Your task to perform on an android device: Is it going to rain this weekend? Image 0: 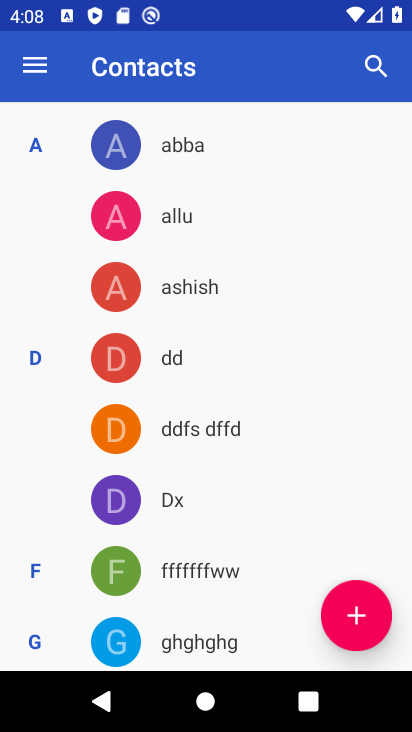
Step 0: press home button
Your task to perform on an android device: Is it going to rain this weekend? Image 1: 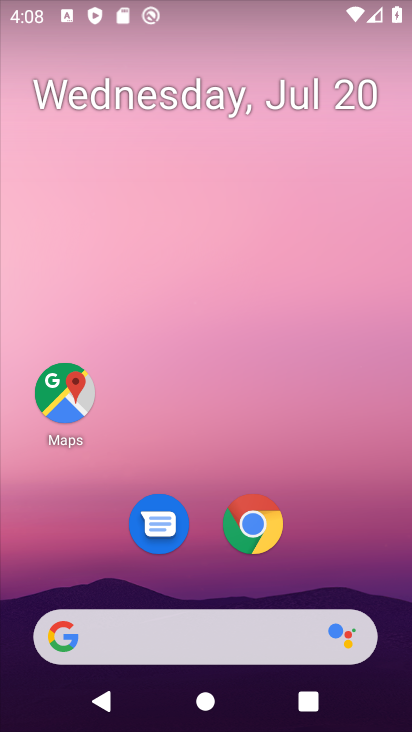
Step 1: click (254, 637)
Your task to perform on an android device: Is it going to rain this weekend? Image 2: 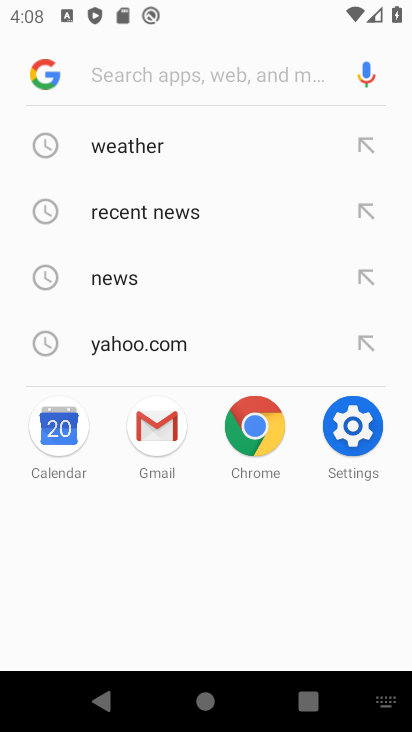
Step 2: click (148, 154)
Your task to perform on an android device: Is it going to rain this weekend? Image 3: 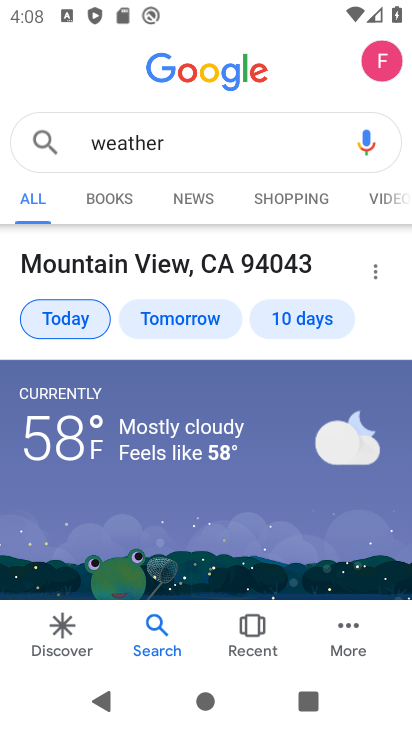
Step 3: click (67, 312)
Your task to perform on an android device: Is it going to rain this weekend? Image 4: 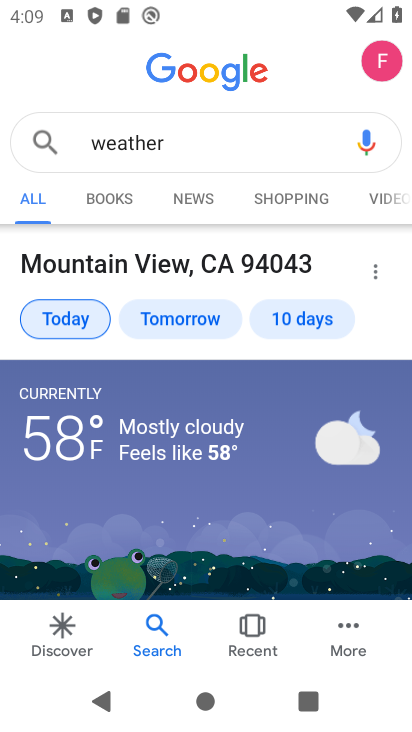
Step 4: click (75, 320)
Your task to perform on an android device: Is it going to rain this weekend? Image 5: 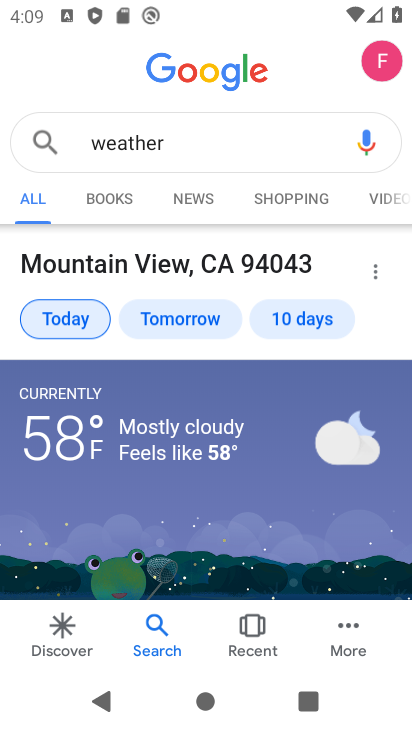
Step 5: click (191, 317)
Your task to perform on an android device: Is it going to rain this weekend? Image 6: 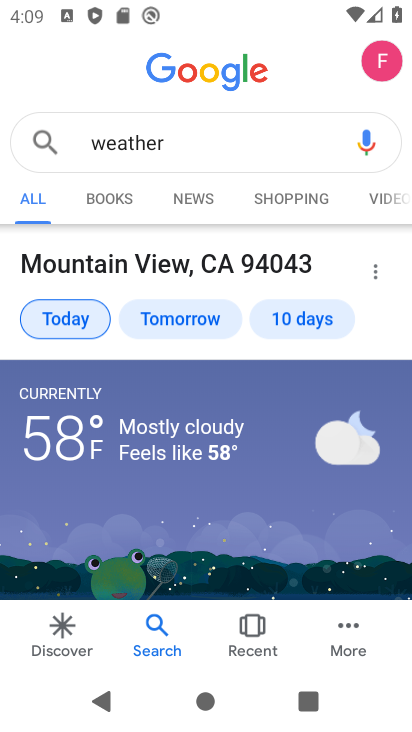
Step 6: click (316, 320)
Your task to perform on an android device: Is it going to rain this weekend? Image 7: 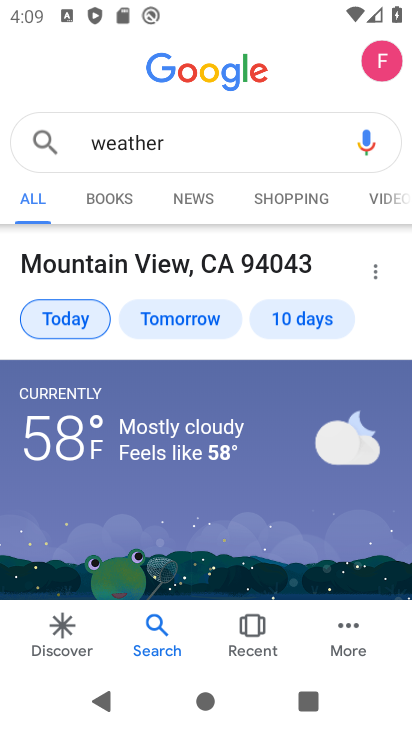
Step 7: press home button
Your task to perform on an android device: Is it going to rain this weekend? Image 8: 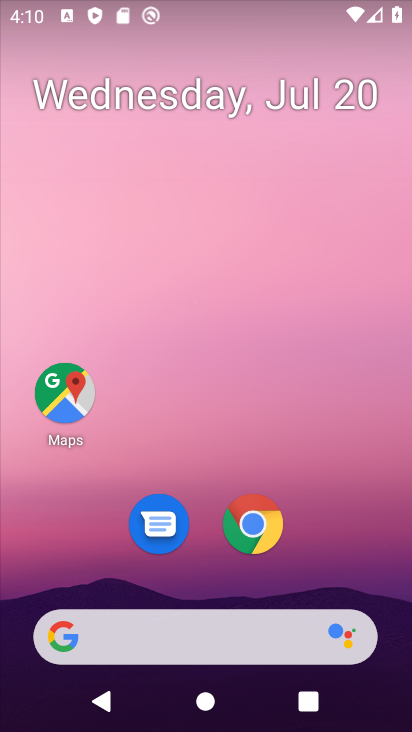
Step 8: click (179, 646)
Your task to perform on an android device: Is it going to rain this weekend? Image 9: 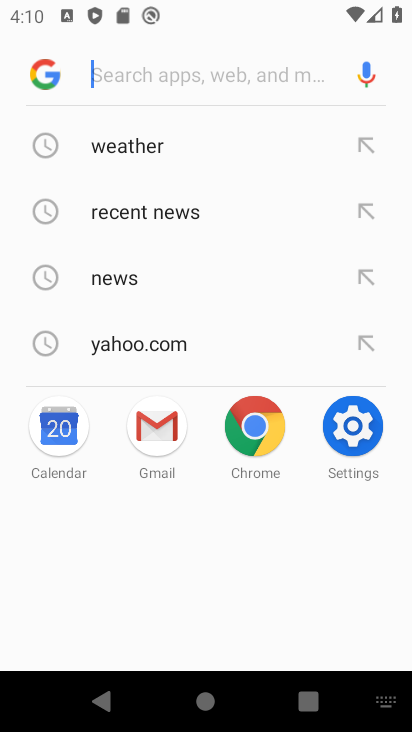
Step 9: click (139, 149)
Your task to perform on an android device: Is it going to rain this weekend? Image 10: 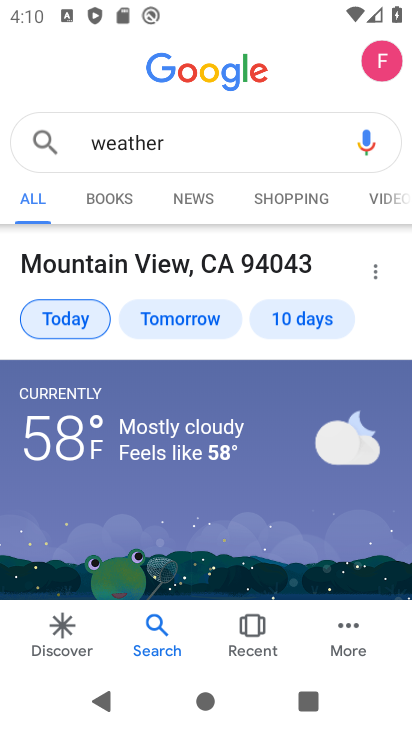
Step 10: click (80, 310)
Your task to perform on an android device: Is it going to rain this weekend? Image 11: 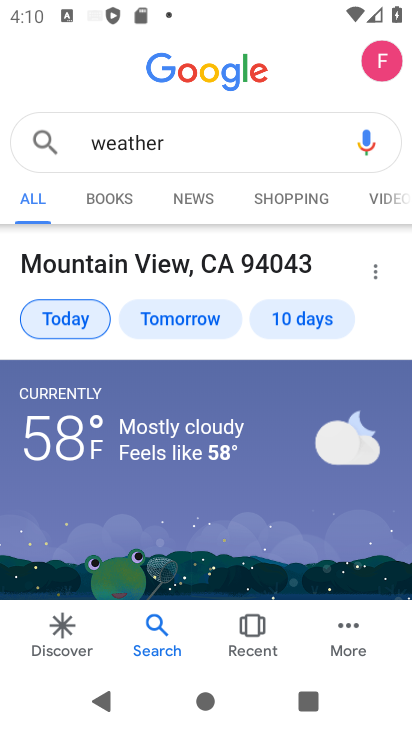
Step 11: click (80, 310)
Your task to perform on an android device: Is it going to rain this weekend? Image 12: 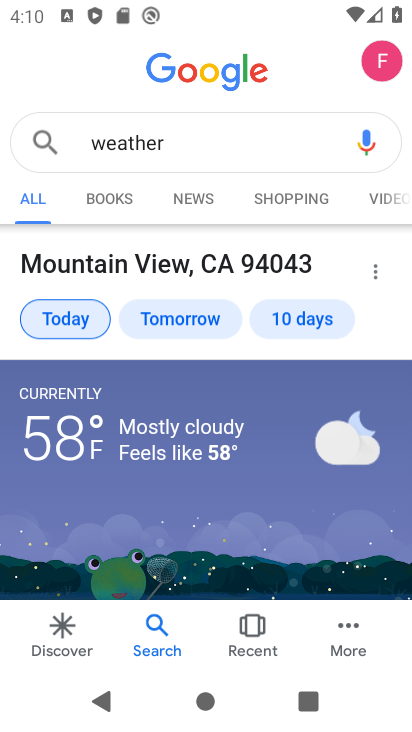
Step 12: click (183, 313)
Your task to perform on an android device: Is it going to rain this weekend? Image 13: 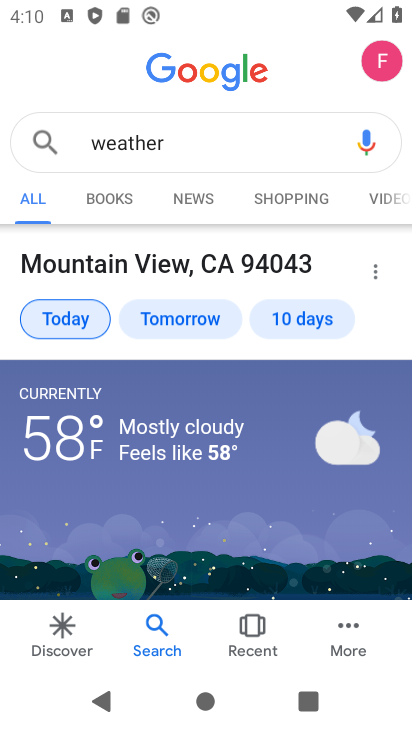
Step 13: click (300, 311)
Your task to perform on an android device: Is it going to rain this weekend? Image 14: 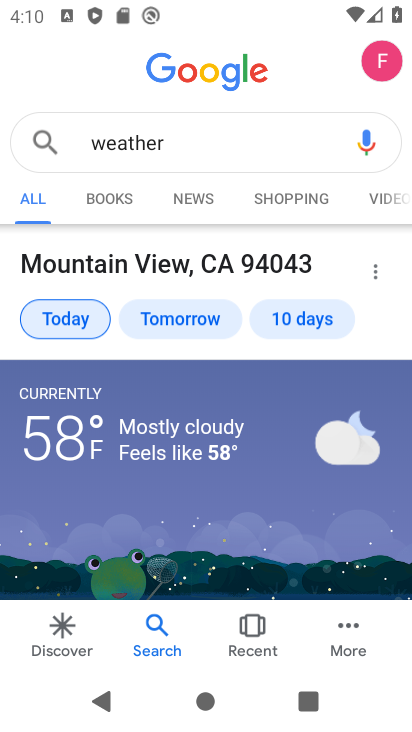
Step 14: click (65, 310)
Your task to perform on an android device: Is it going to rain this weekend? Image 15: 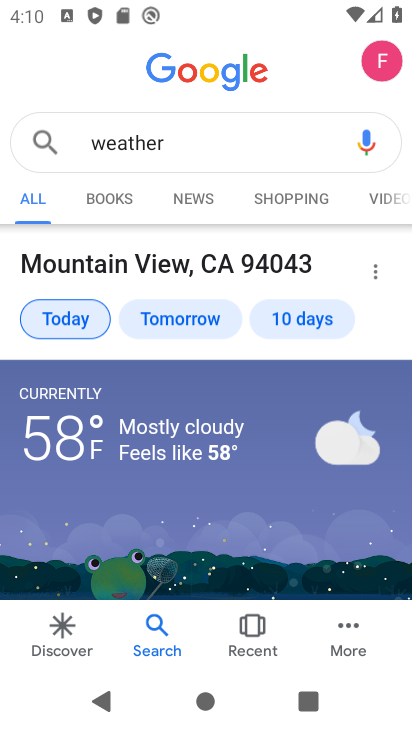
Step 15: click (300, 311)
Your task to perform on an android device: Is it going to rain this weekend? Image 16: 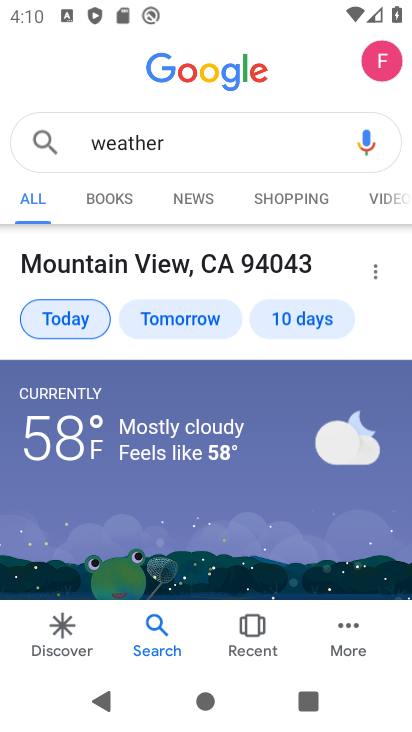
Step 16: drag from (203, 488) to (229, 217)
Your task to perform on an android device: Is it going to rain this weekend? Image 17: 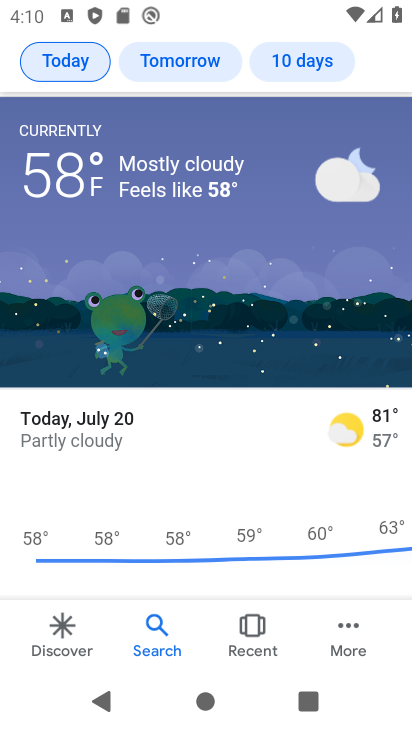
Step 17: click (106, 414)
Your task to perform on an android device: Is it going to rain this weekend? Image 18: 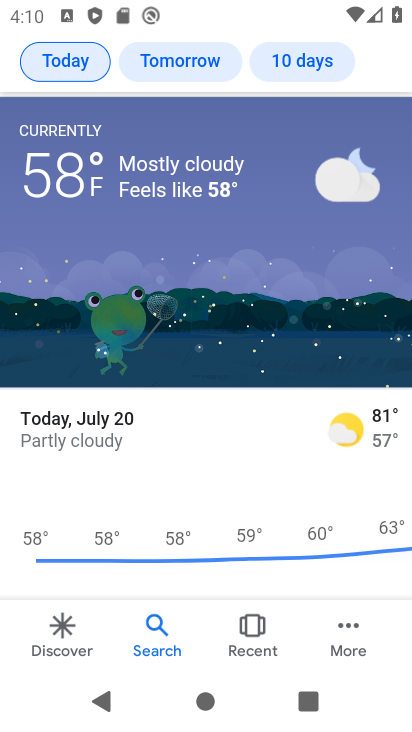
Step 18: click (106, 415)
Your task to perform on an android device: Is it going to rain this weekend? Image 19: 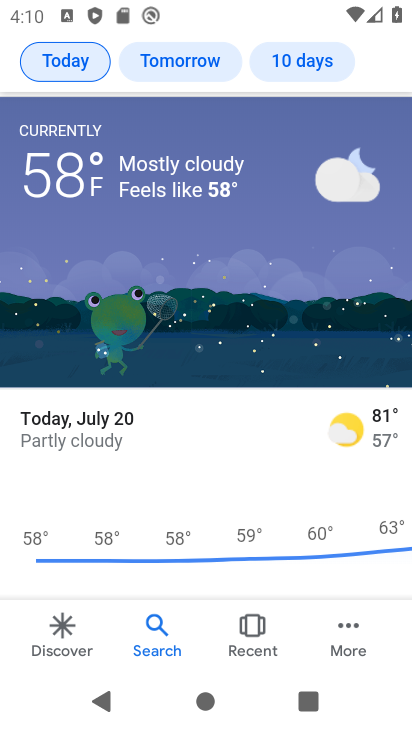
Step 19: drag from (223, 459) to (274, 179)
Your task to perform on an android device: Is it going to rain this weekend? Image 20: 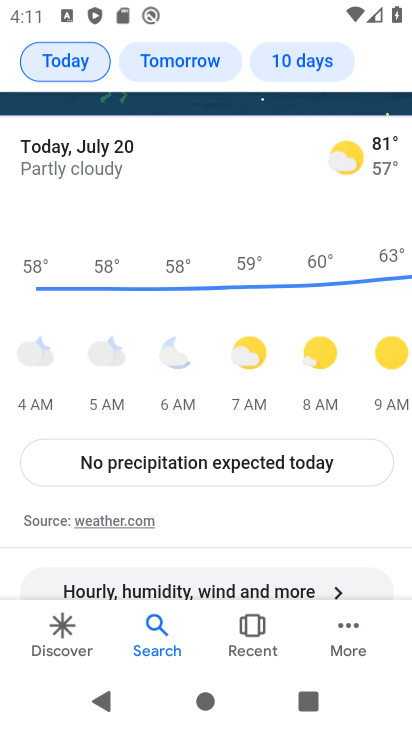
Step 20: drag from (221, 452) to (241, 149)
Your task to perform on an android device: Is it going to rain this weekend? Image 21: 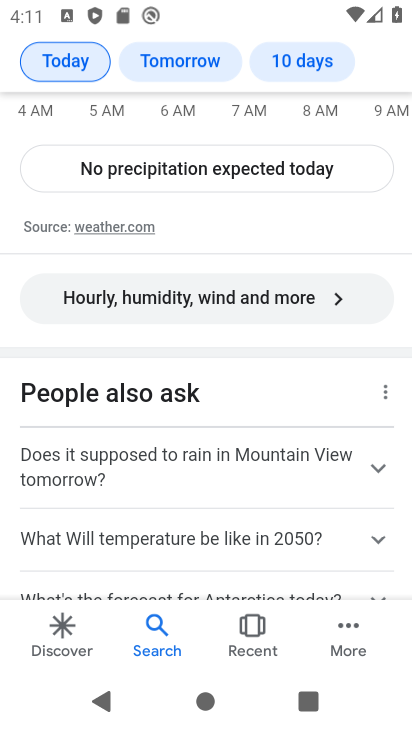
Step 21: drag from (227, 218) to (203, 581)
Your task to perform on an android device: Is it going to rain this weekend? Image 22: 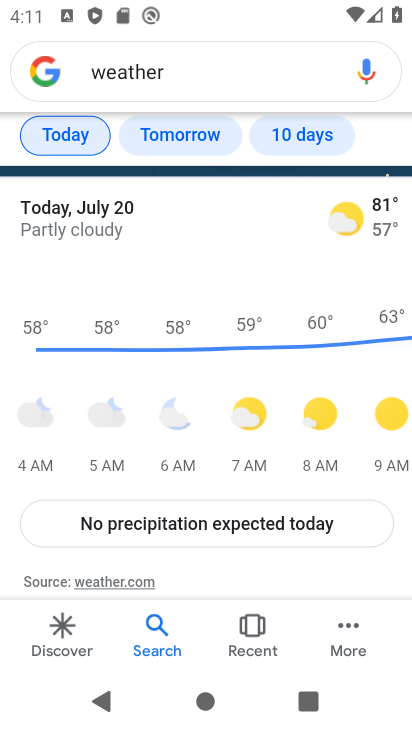
Step 22: drag from (245, 265) to (251, 578)
Your task to perform on an android device: Is it going to rain this weekend? Image 23: 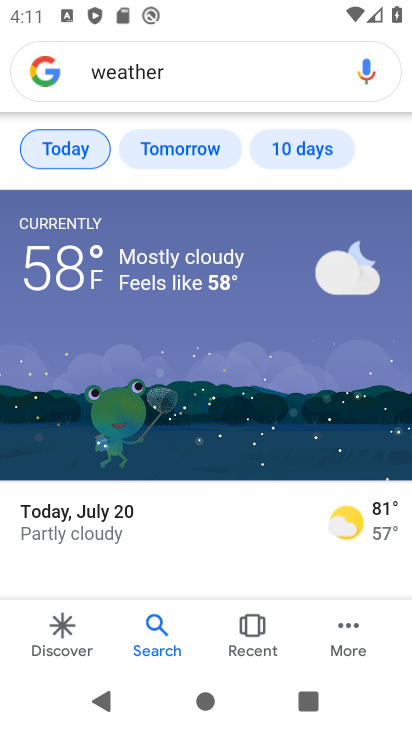
Step 23: drag from (265, 279) to (257, 589)
Your task to perform on an android device: Is it going to rain this weekend? Image 24: 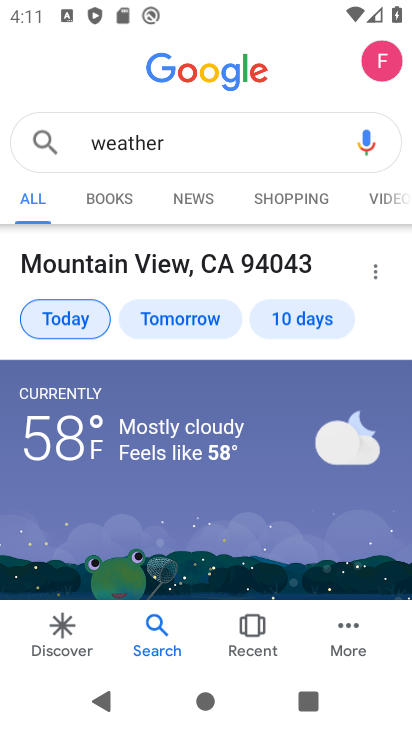
Step 24: drag from (350, 447) to (26, 397)
Your task to perform on an android device: Is it going to rain this weekend? Image 25: 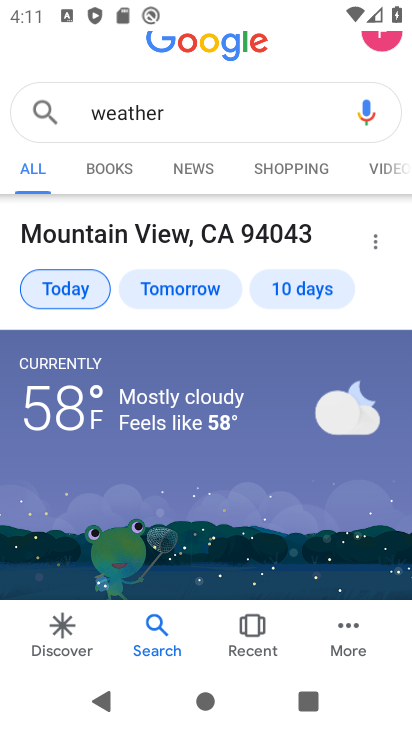
Step 25: click (58, 287)
Your task to perform on an android device: Is it going to rain this weekend? Image 26: 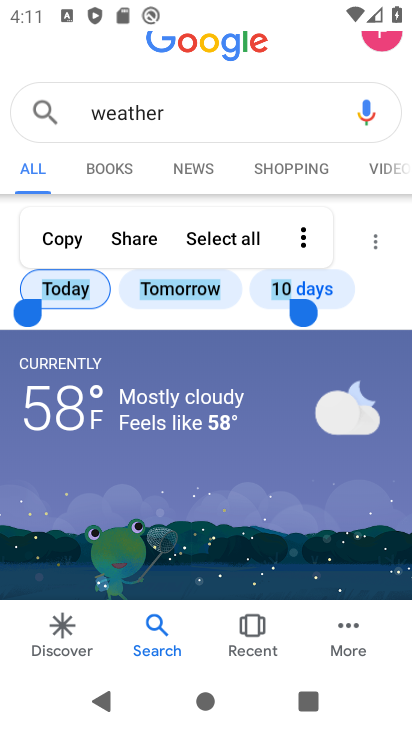
Step 26: click (58, 287)
Your task to perform on an android device: Is it going to rain this weekend? Image 27: 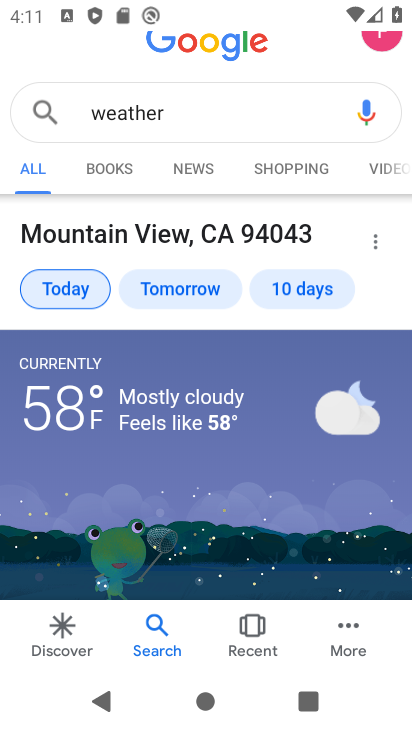
Step 27: click (220, 101)
Your task to perform on an android device: Is it going to rain this weekend? Image 28: 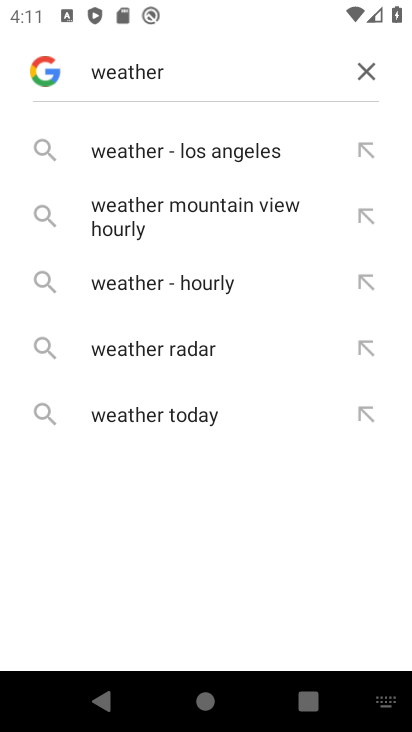
Step 28: click (363, 66)
Your task to perform on an android device: Is it going to rain this weekend? Image 29: 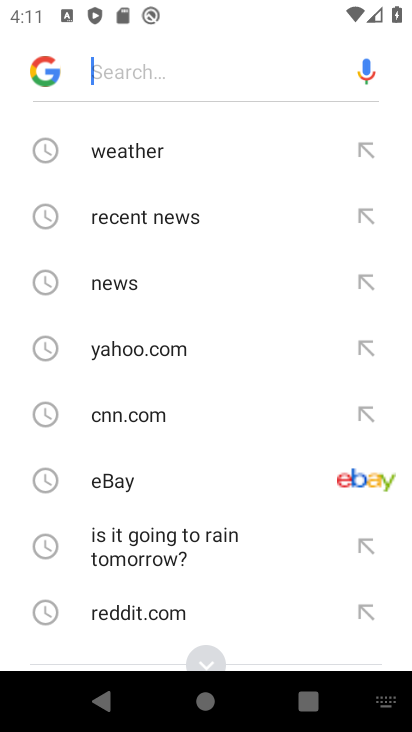
Step 29: click (149, 154)
Your task to perform on an android device: Is it going to rain this weekend? Image 30: 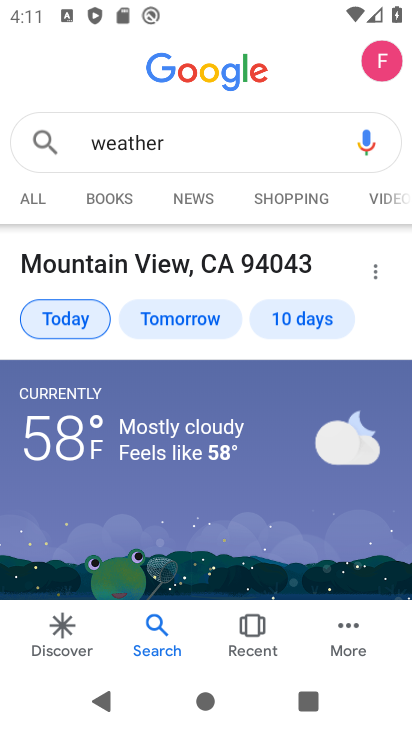
Step 30: click (73, 320)
Your task to perform on an android device: Is it going to rain this weekend? Image 31: 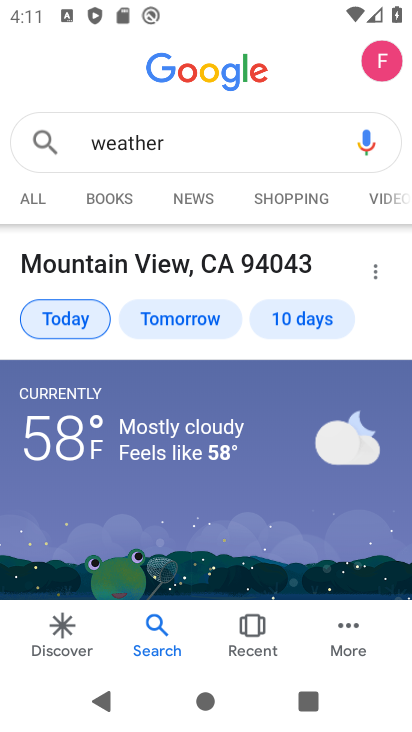
Step 31: task complete